Your task to perform on an android device: refresh tabs in the chrome app Image 0: 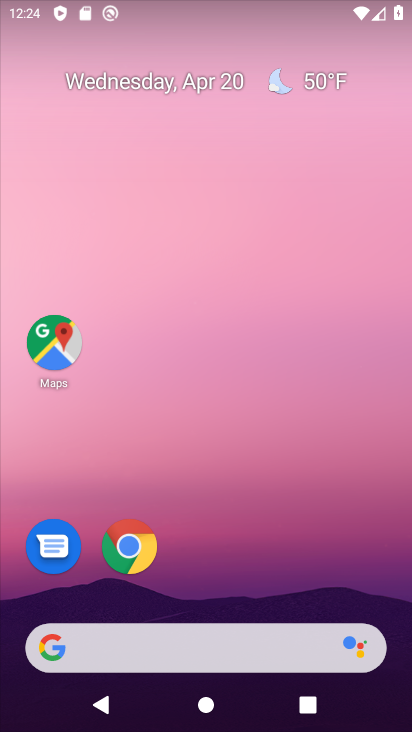
Step 0: drag from (163, 350) to (193, 34)
Your task to perform on an android device: refresh tabs in the chrome app Image 1: 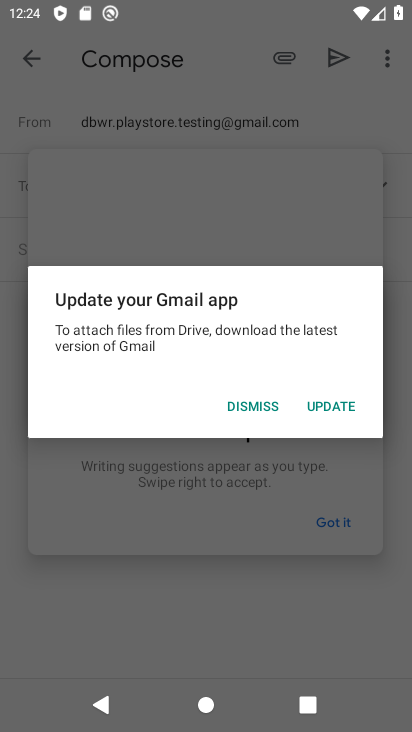
Step 1: press back button
Your task to perform on an android device: refresh tabs in the chrome app Image 2: 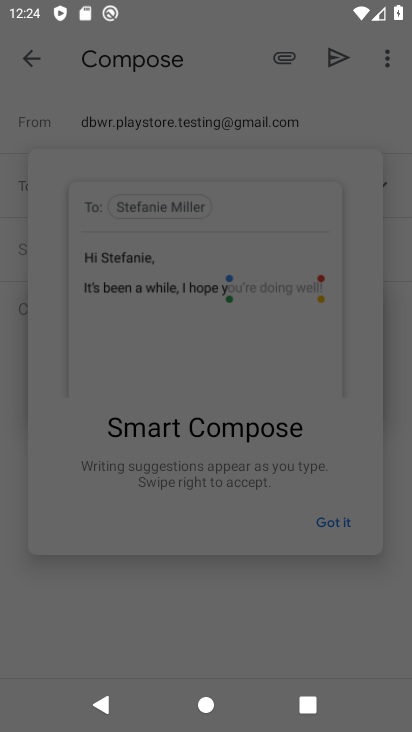
Step 2: press back button
Your task to perform on an android device: refresh tabs in the chrome app Image 3: 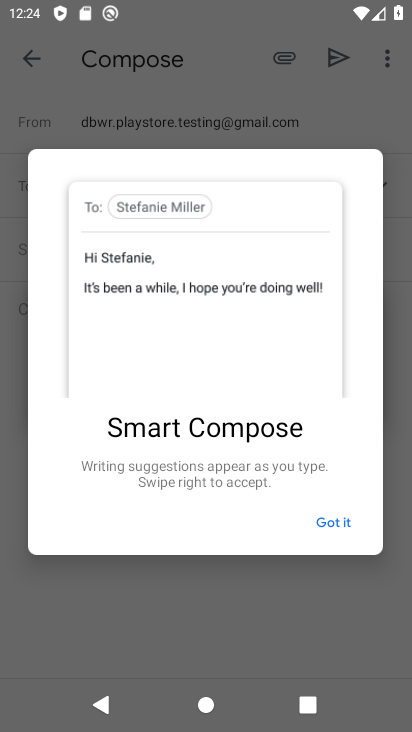
Step 3: press back button
Your task to perform on an android device: refresh tabs in the chrome app Image 4: 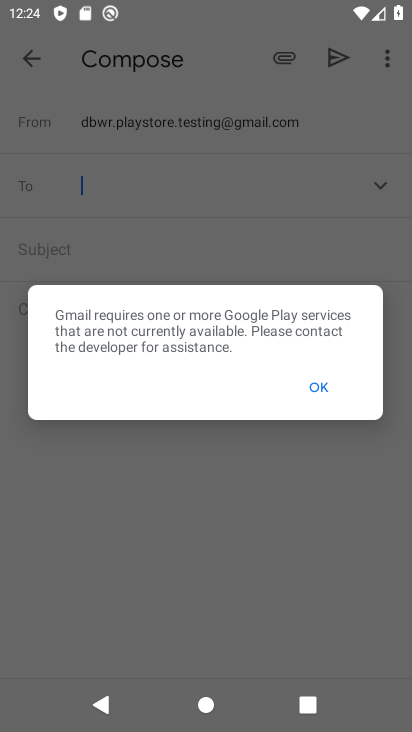
Step 4: press home button
Your task to perform on an android device: refresh tabs in the chrome app Image 5: 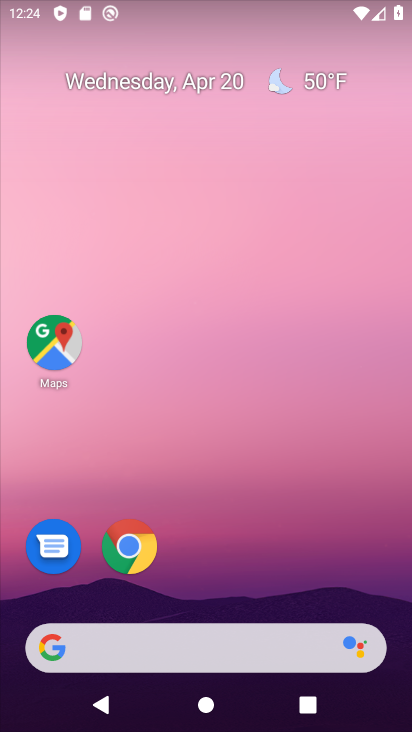
Step 5: click (119, 537)
Your task to perform on an android device: refresh tabs in the chrome app Image 6: 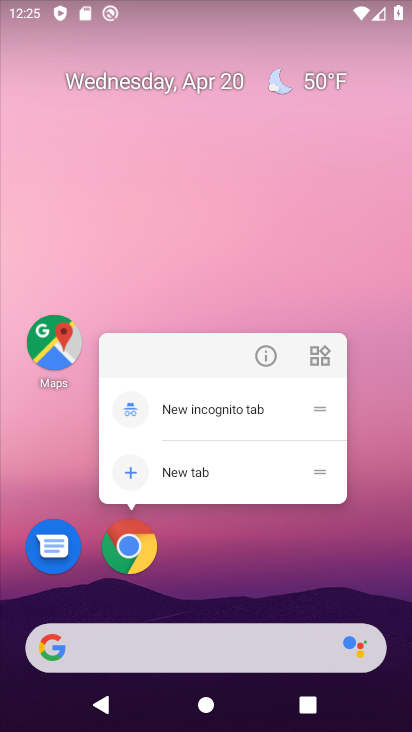
Step 6: click (151, 544)
Your task to perform on an android device: refresh tabs in the chrome app Image 7: 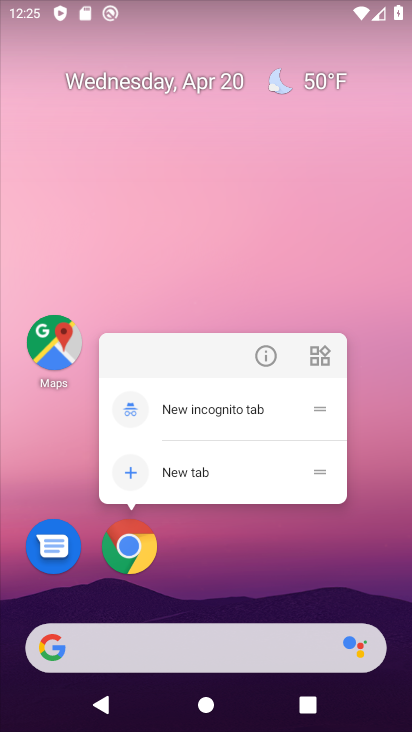
Step 7: click (122, 542)
Your task to perform on an android device: refresh tabs in the chrome app Image 8: 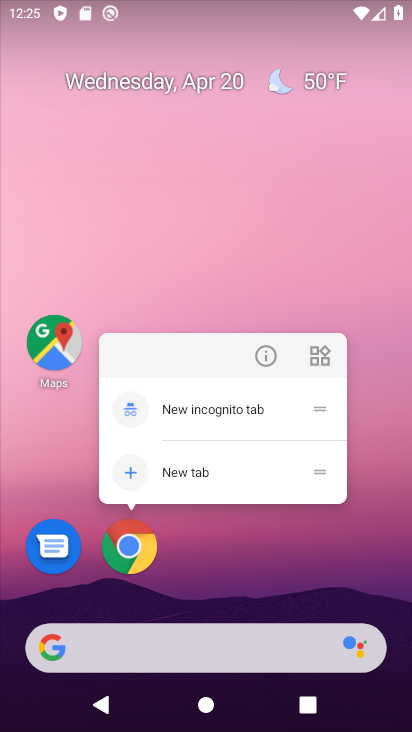
Step 8: click (127, 551)
Your task to perform on an android device: refresh tabs in the chrome app Image 9: 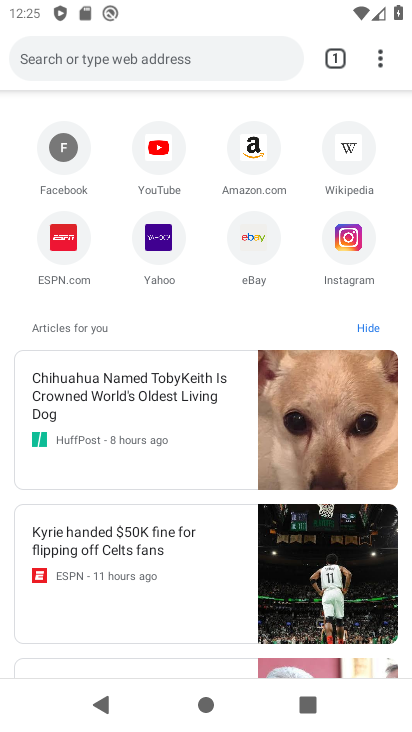
Step 9: click (375, 50)
Your task to perform on an android device: refresh tabs in the chrome app Image 10: 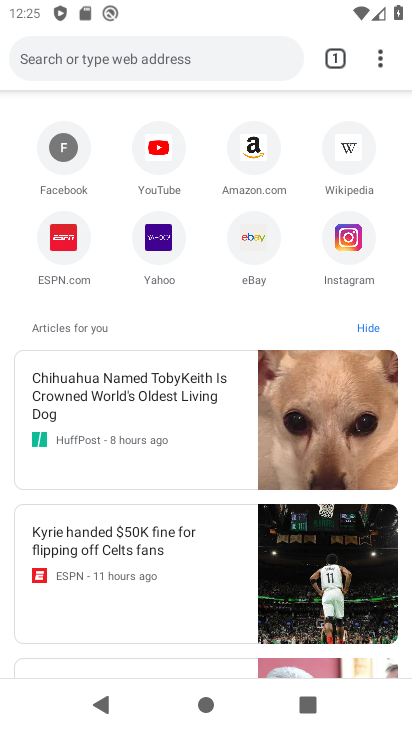
Step 10: click (379, 51)
Your task to perform on an android device: refresh tabs in the chrome app Image 11: 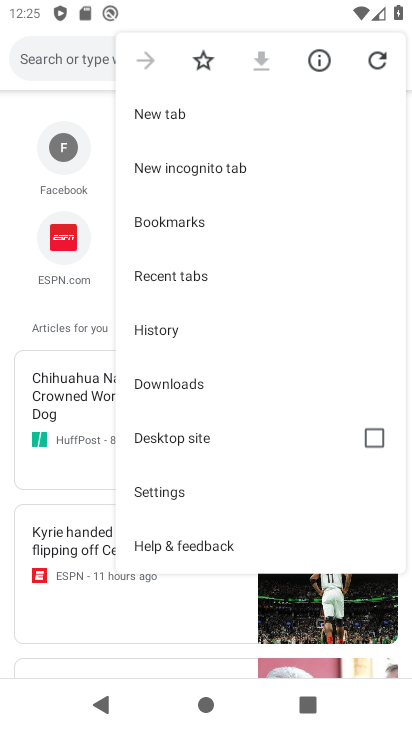
Step 11: click (379, 56)
Your task to perform on an android device: refresh tabs in the chrome app Image 12: 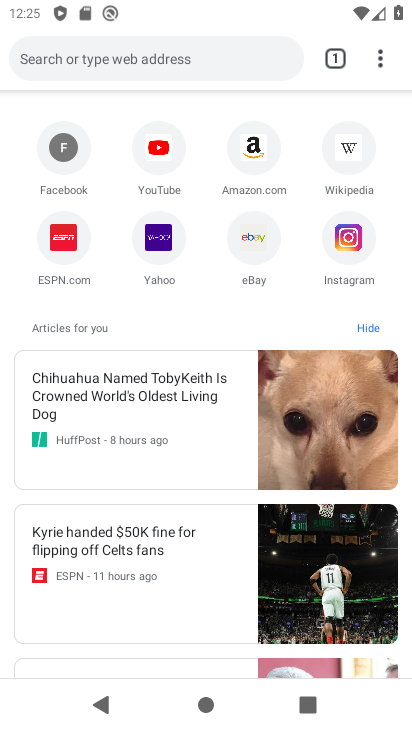
Step 12: task complete